Your task to perform on an android device: refresh tabs in the chrome app Image 0: 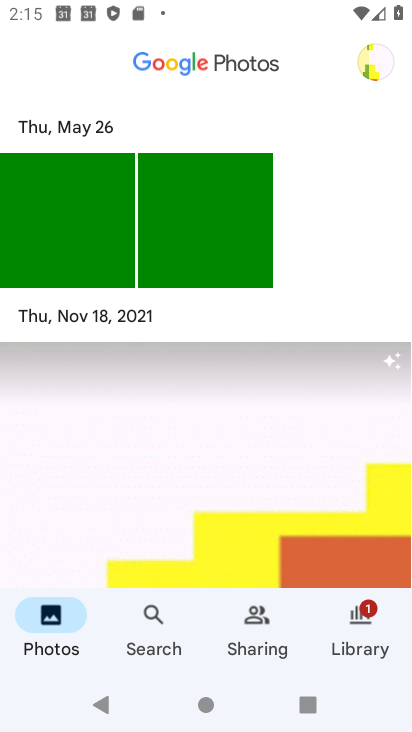
Step 0: click (358, 239)
Your task to perform on an android device: refresh tabs in the chrome app Image 1: 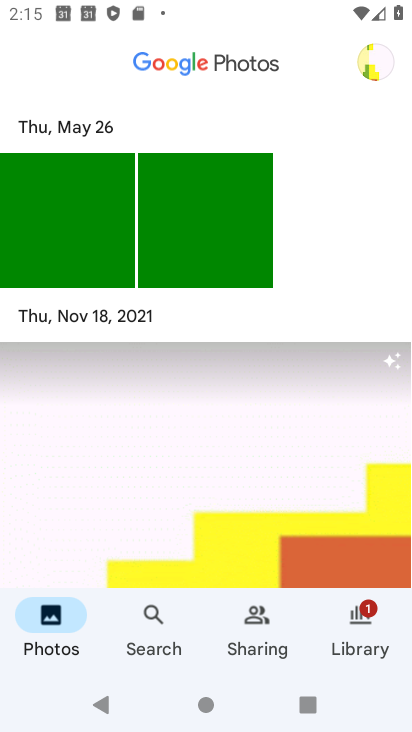
Step 1: press home button
Your task to perform on an android device: refresh tabs in the chrome app Image 2: 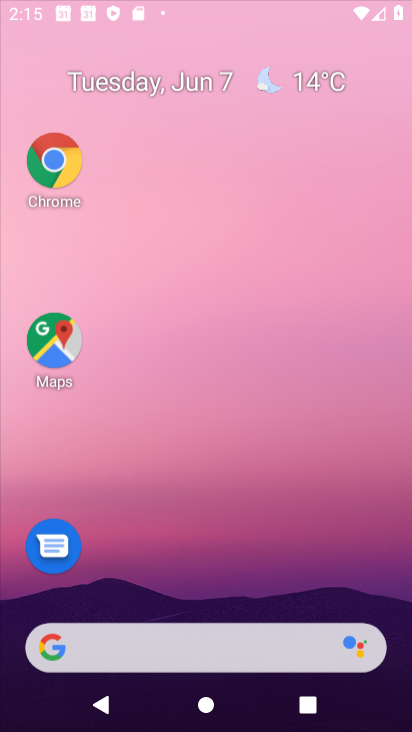
Step 2: drag from (217, 490) to (215, 0)
Your task to perform on an android device: refresh tabs in the chrome app Image 3: 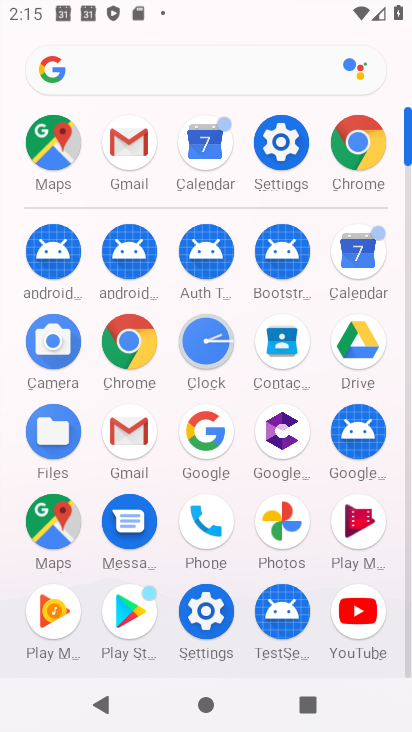
Step 3: click (118, 340)
Your task to perform on an android device: refresh tabs in the chrome app Image 4: 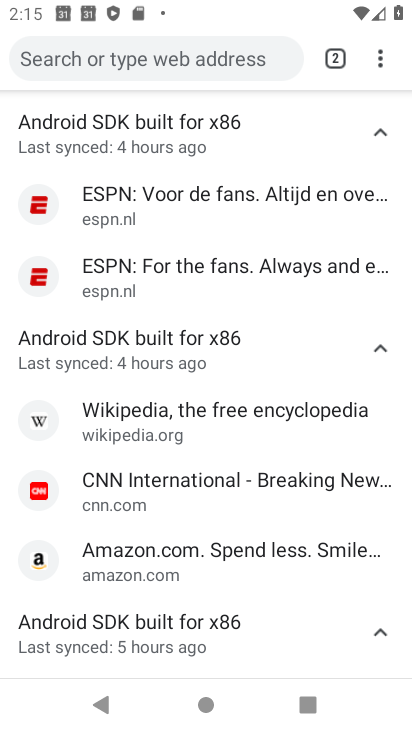
Step 4: click (378, 51)
Your task to perform on an android device: refresh tabs in the chrome app Image 5: 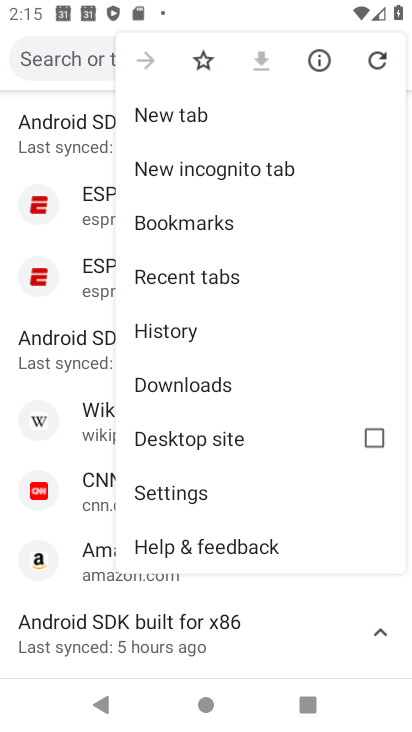
Step 5: click (378, 52)
Your task to perform on an android device: refresh tabs in the chrome app Image 6: 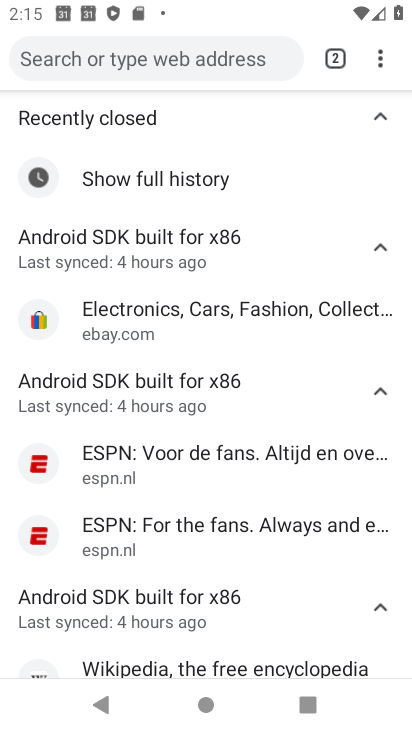
Step 6: task complete